Your task to perform on an android device: set an alarm Image 0: 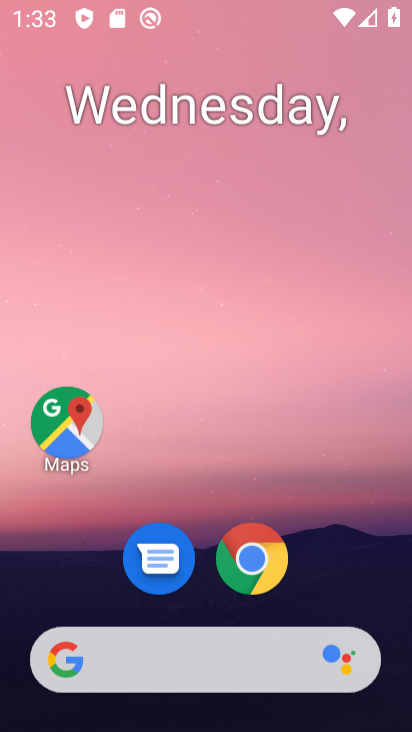
Step 0: click (310, 98)
Your task to perform on an android device: set an alarm Image 1: 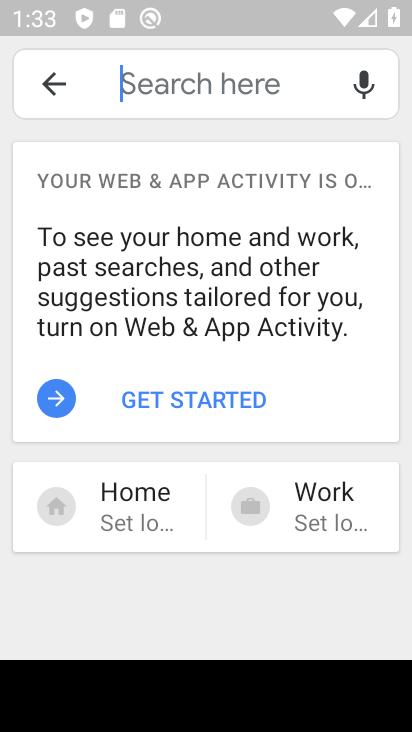
Step 1: press home button
Your task to perform on an android device: set an alarm Image 2: 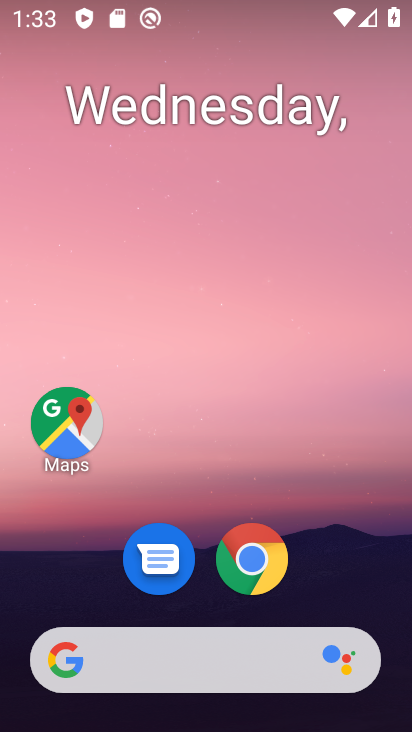
Step 2: drag from (365, 572) to (282, 76)
Your task to perform on an android device: set an alarm Image 3: 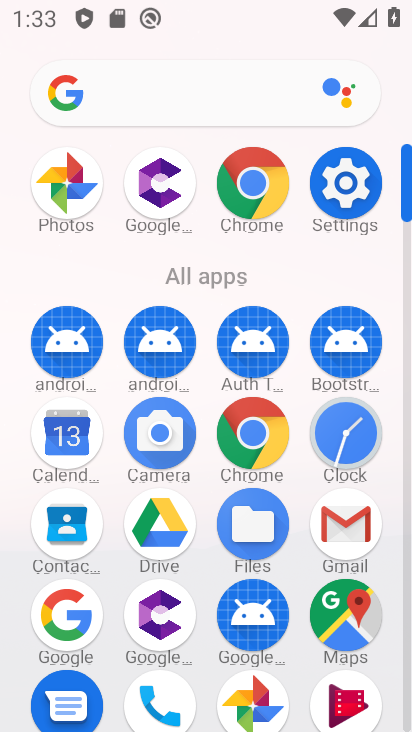
Step 3: click (348, 442)
Your task to perform on an android device: set an alarm Image 4: 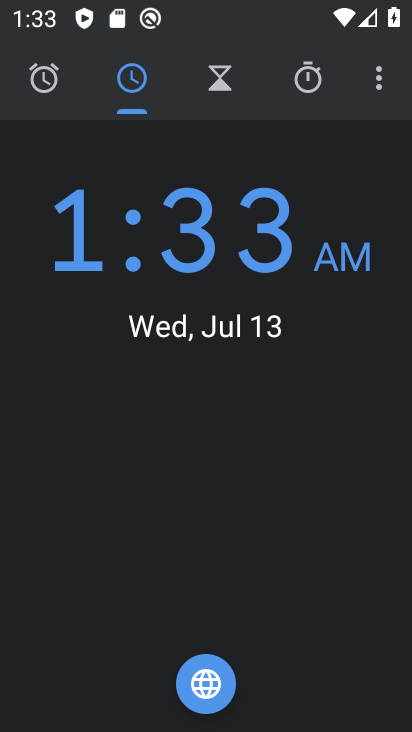
Step 4: click (57, 85)
Your task to perform on an android device: set an alarm Image 5: 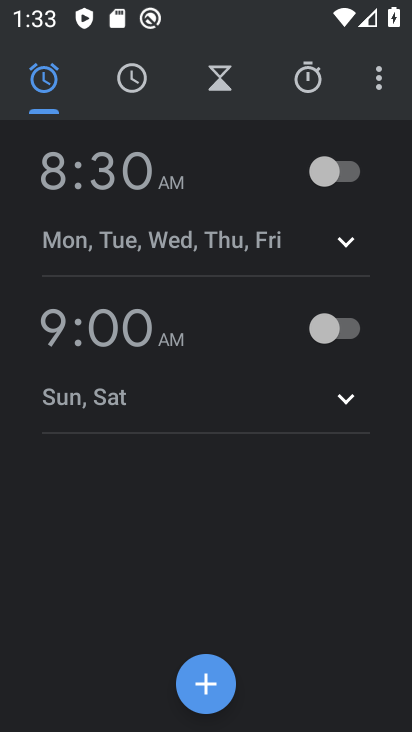
Step 5: click (195, 706)
Your task to perform on an android device: set an alarm Image 6: 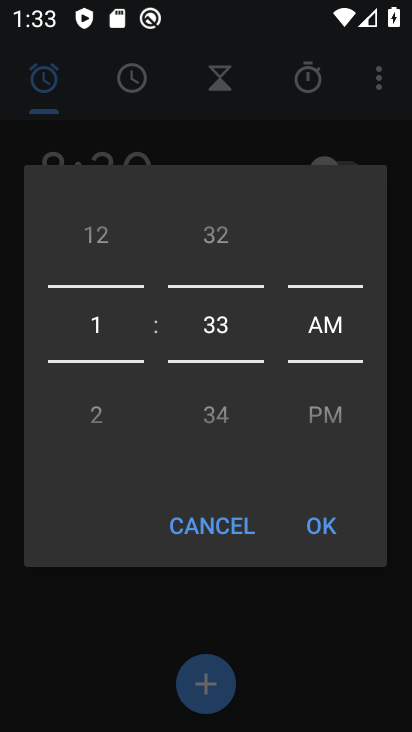
Step 6: click (314, 537)
Your task to perform on an android device: set an alarm Image 7: 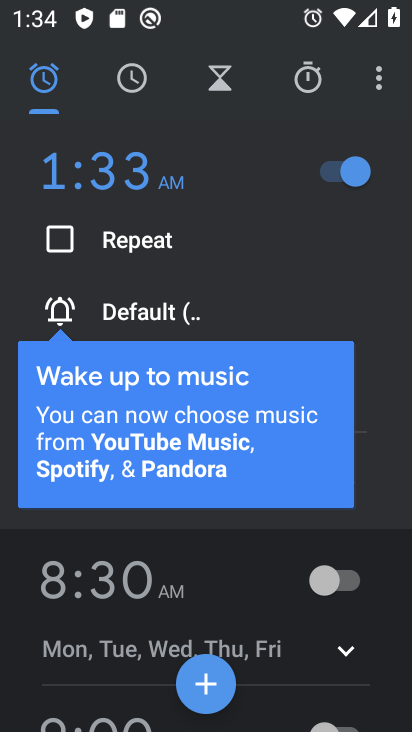
Step 7: task complete